Your task to perform on an android device: Go to display settings Image 0: 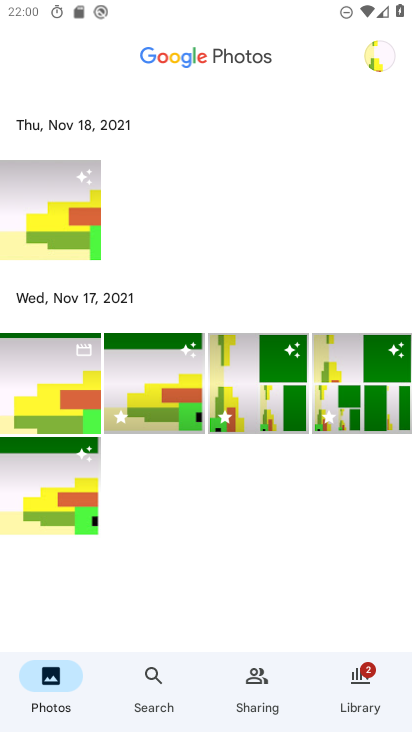
Step 0: press home button
Your task to perform on an android device: Go to display settings Image 1: 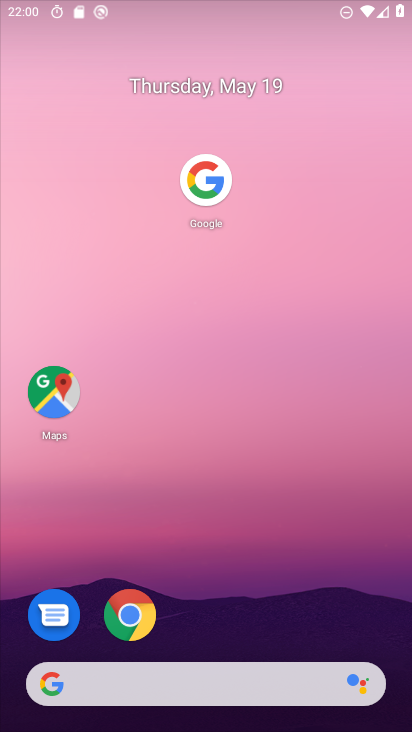
Step 1: drag from (249, 586) to (256, 183)
Your task to perform on an android device: Go to display settings Image 2: 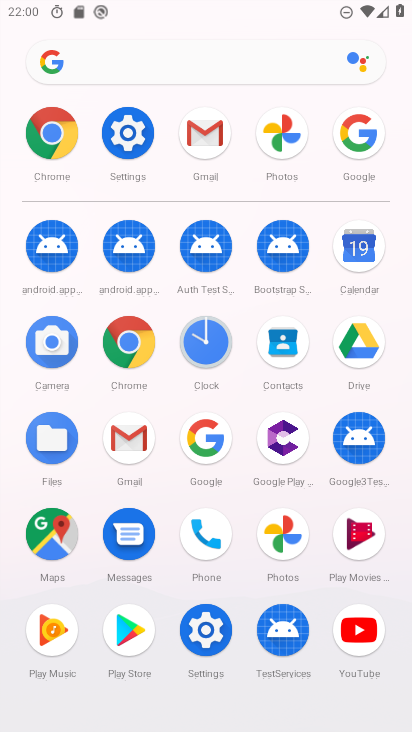
Step 2: click (132, 136)
Your task to perform on an android device: Go to display settings Image 3: 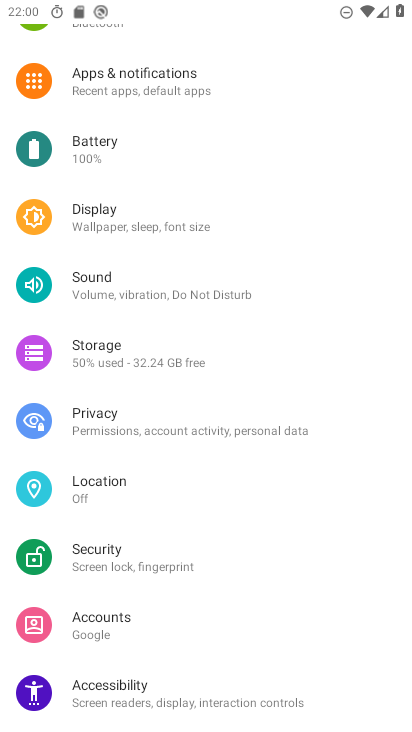
Step 3: click (104, 211)
Your task to perform on an android device: Go to display settings Image 4: 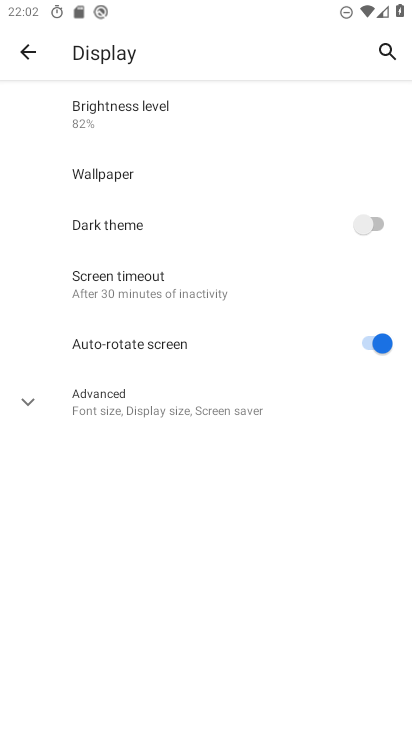
Step 4: task complete